Your task to perform on an android device: Open Maps and search for coffee Image 0: 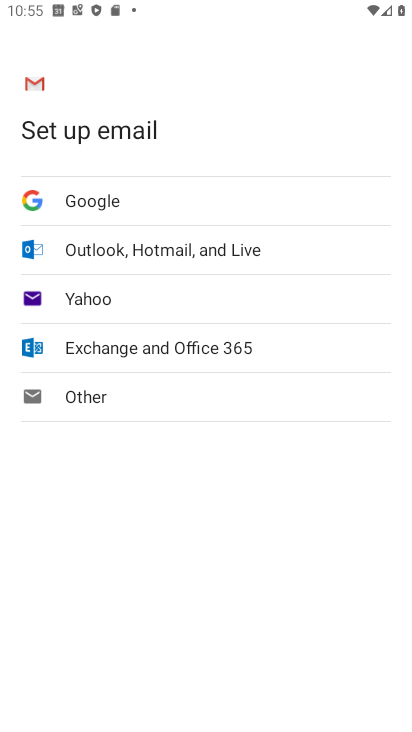
Step 0: press home button
Your task to perform on an android device: Open Maps and search for coffee Image 1: 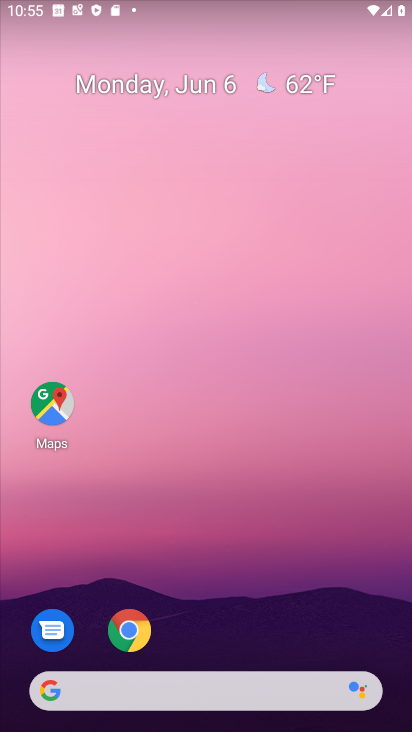
Step 1: drag from (326, 597) to (295, 116)
Your task to perform on an android device: Open Maps and search for coffee Image 2: 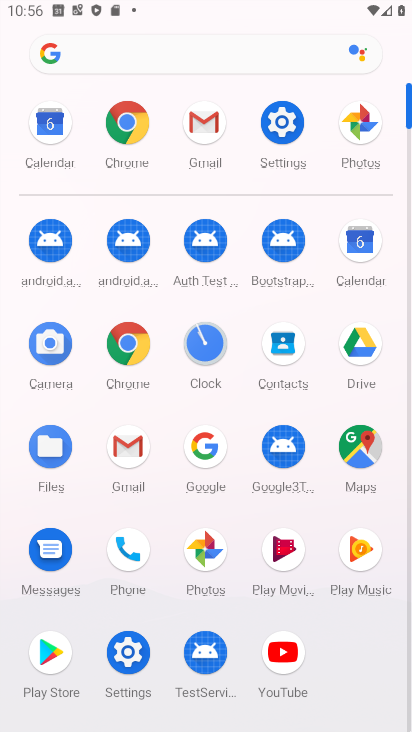
Step 2: click (364, 442)
Your task to perform on an android device: Open Maps and search for coffee Image 3: 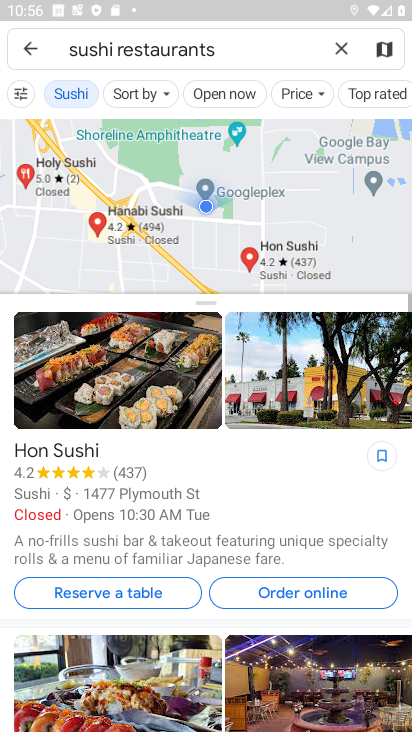
Step 3: click (346, 46)
Your task to perform on an android device: Open Maps and search for coffee Image 4: 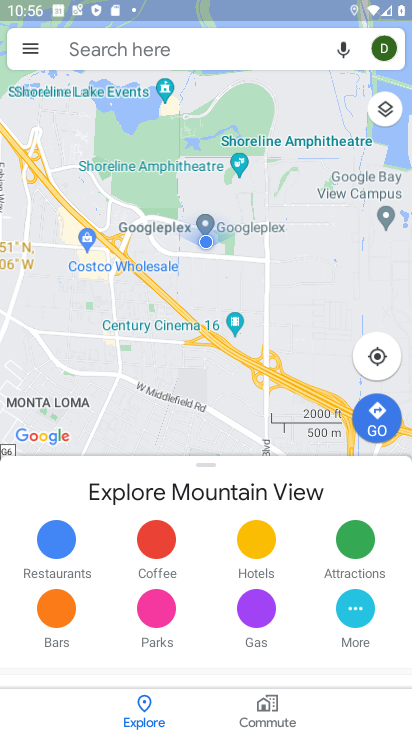
Step 4: click (190, 54)
Your task to perform on an android device: Open Maps and search for coffee Image 5: 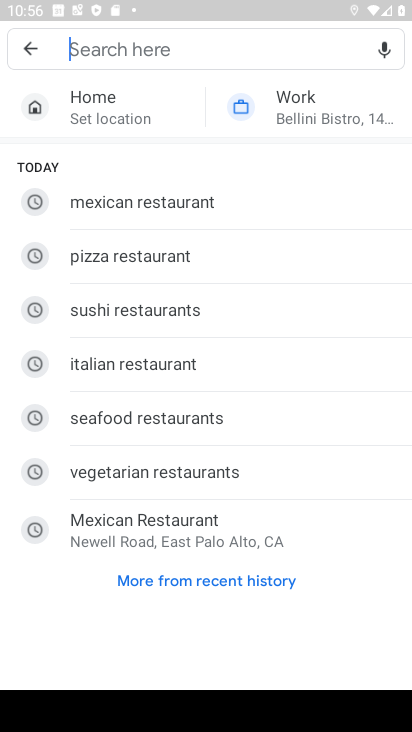
Step 5: type "coffee"
Your task to perform on an android device: Open Maps and search for coffee Image 6: 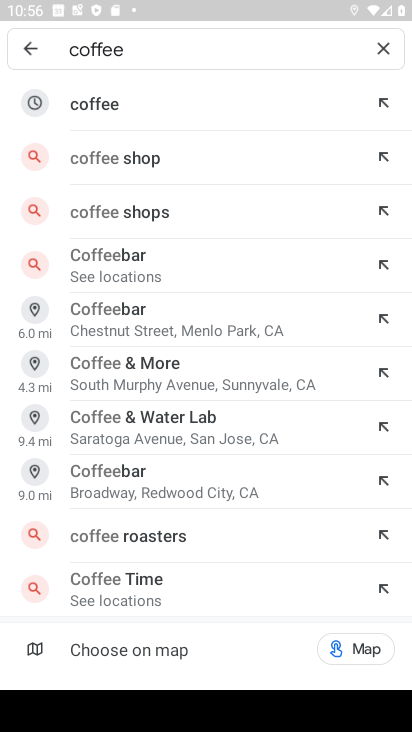
Step 6: click (157, 100)
Your task to perform on an android device: Open Maps and search for coffee Image 7: 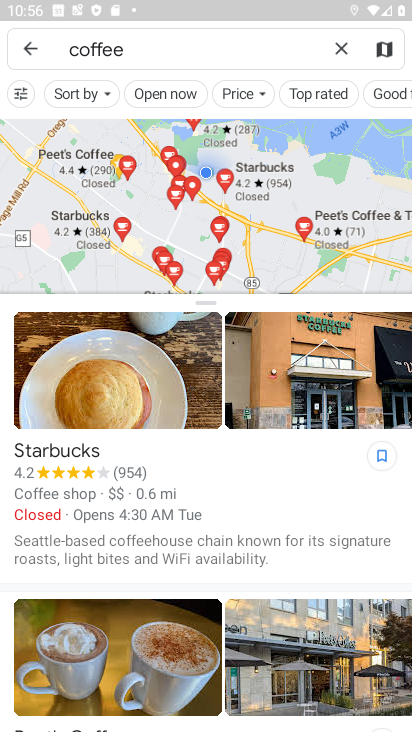
Step 7: task complete